Your task to perform on an android device: check google app version Image 0: 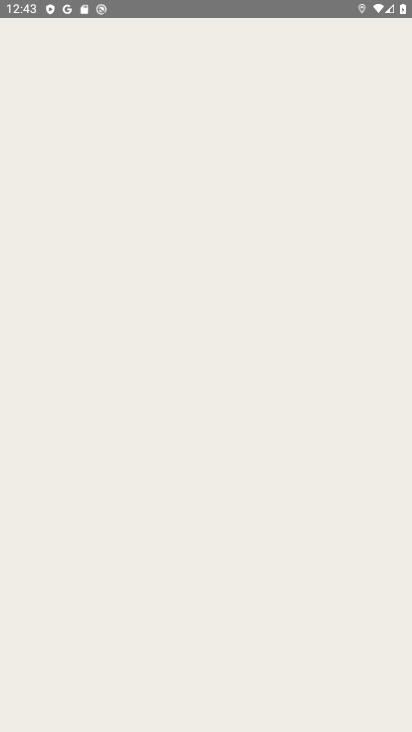
Step 0: drag from (261, 639) to (178, 185)
Your task to perform on an android device: check google app version Image 1: 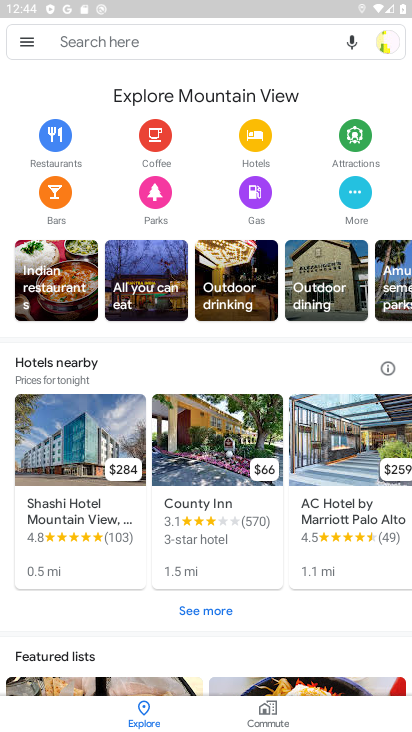
Step 1: press back button
Your task to perform on an android device: check google app version Image 2: 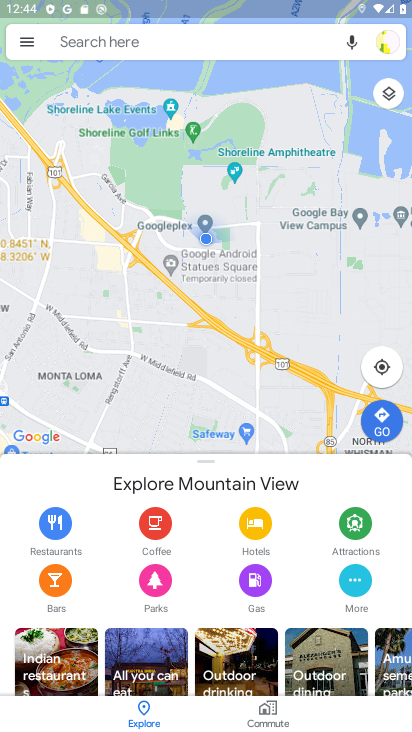
Step 2: press back button
Your task to perform on an android device: check google app version Image 3: 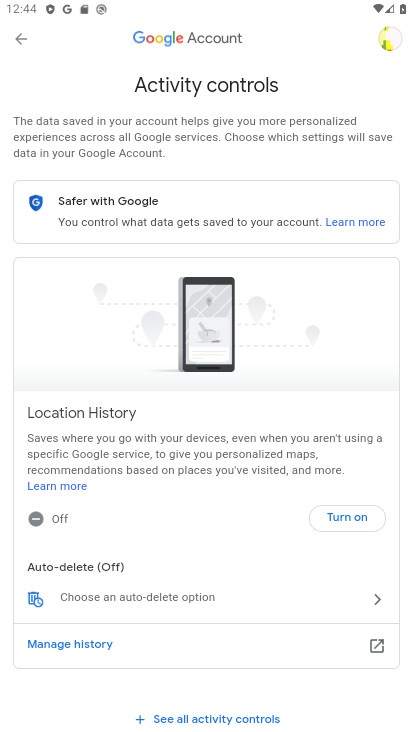
Step 3: press home button
Your task to perform on an android device: check google app version Image 4: 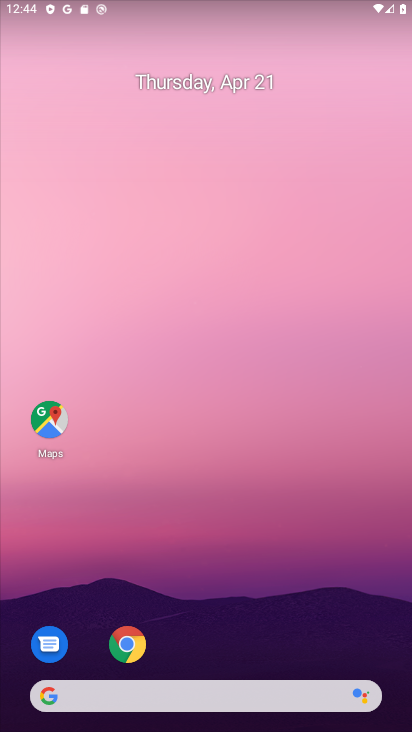
Step 4: click (137, 630)
Your task to perform on an android device: check google app version Image 5: 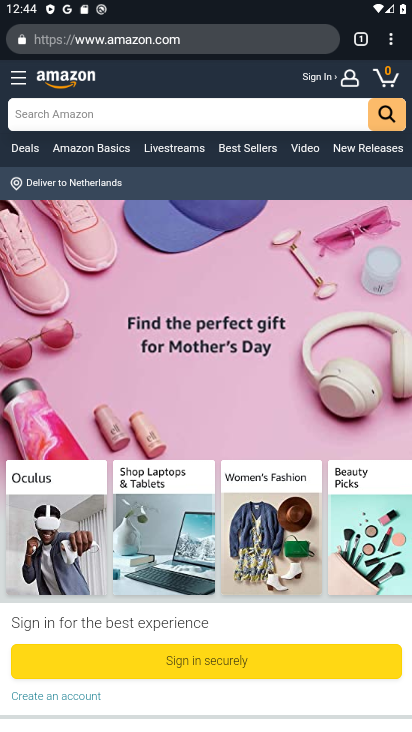
Step 5: click (389, 38)
Your task to perform on an android device: check google app version Image 6: 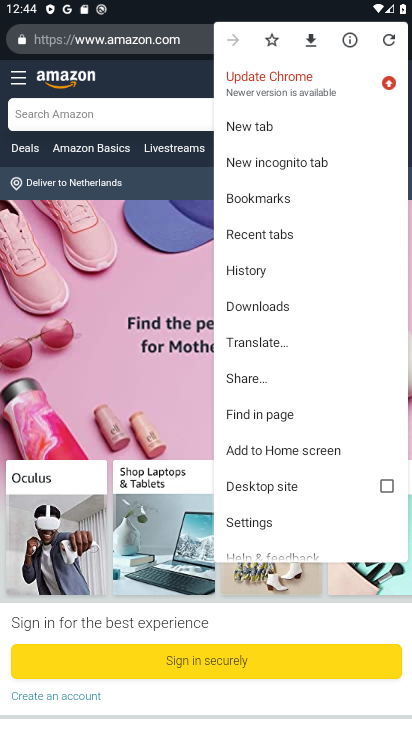
Step 6: drag from (254, 526) to (295, 177)
Your task to perform on an android device: check google app version Image 7: 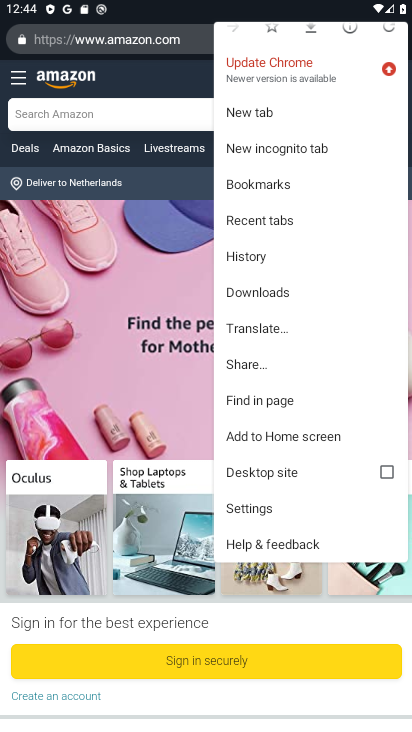
Step 7: click (299, 535)
Your task to perform on an android device: check google app version Image 8: 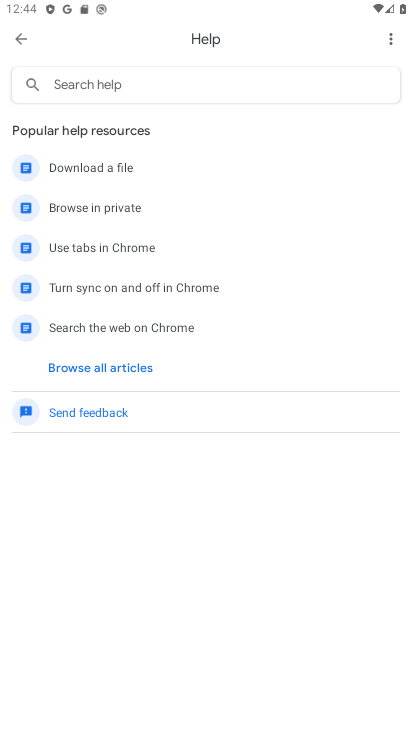
Step 8: click (393, 42)
Your task to perform on an android device: check google app version Image 9: 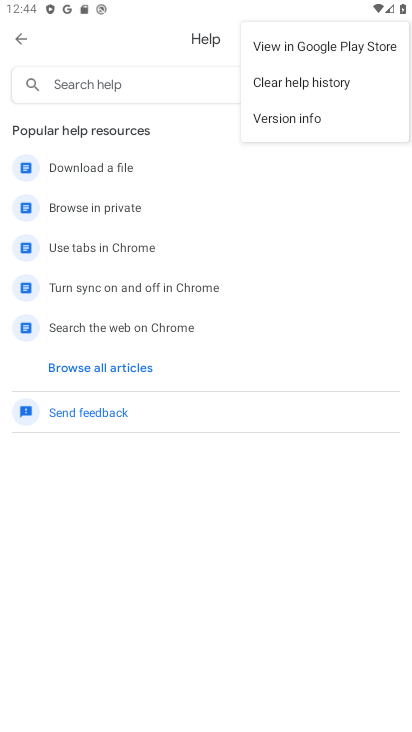
Step 9: click (363, 122)
Your task to perform on an android device: check google app version Image 10: 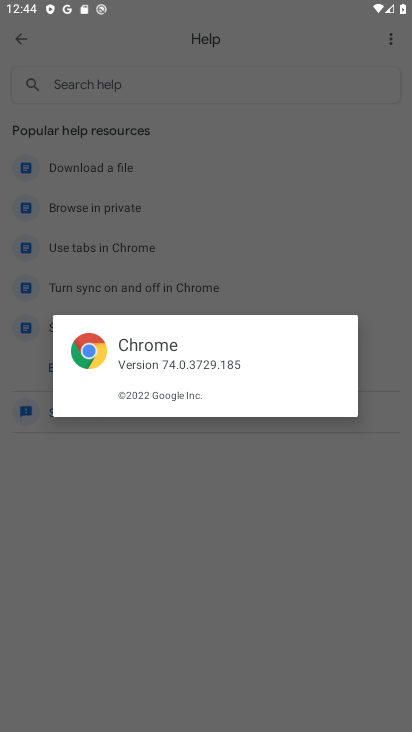
Step 10: task complete